Your task to perform on an android device: add a label to a message in the gmail app Image 0: 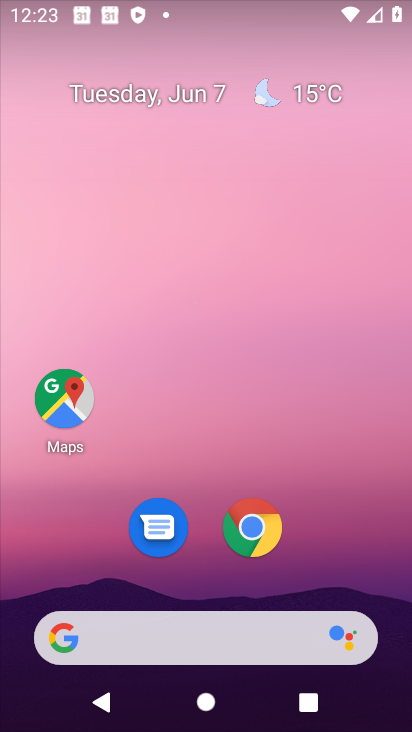
Step 0: drag from (260, 676) to (243, 106)
Your task to perform on an android device: add a label to a message in the gmail app Image 1: 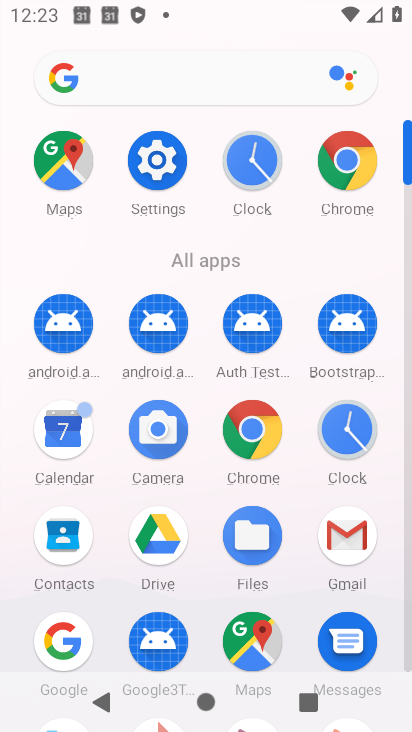
Step 1: click (356, 532)
Your task to perform on an android device: add a label to a message in the gmail app Image 2: 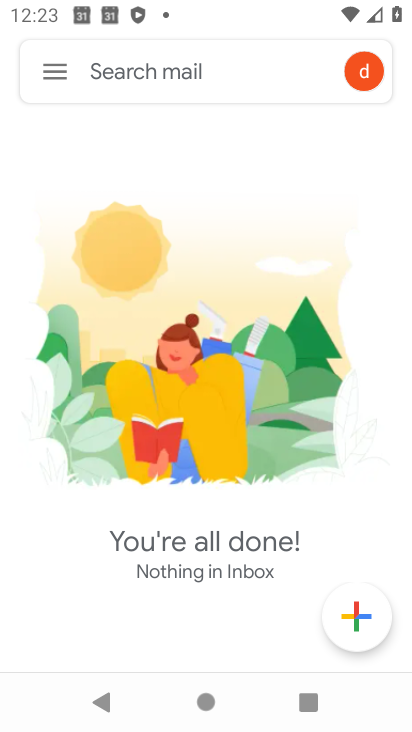
Step 2: click (67, 80)
Your task to perform on an android device: add a label to a message in the gmail app Image 3: 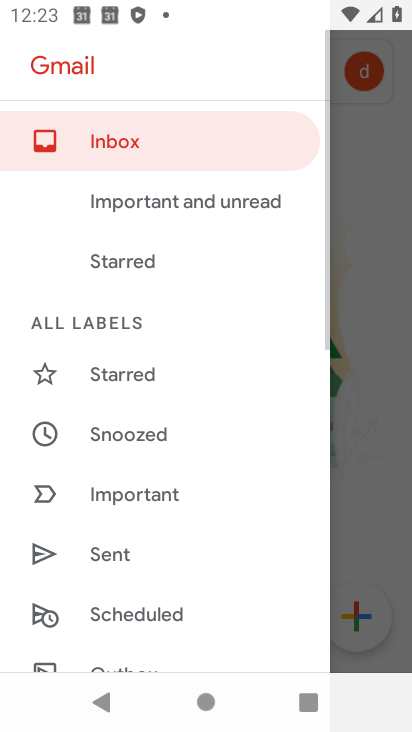
Step 3: drag from (137, 537) to (127, 126)
Your task to perform on an android device: add a label to a message in the gmail app Image 4: 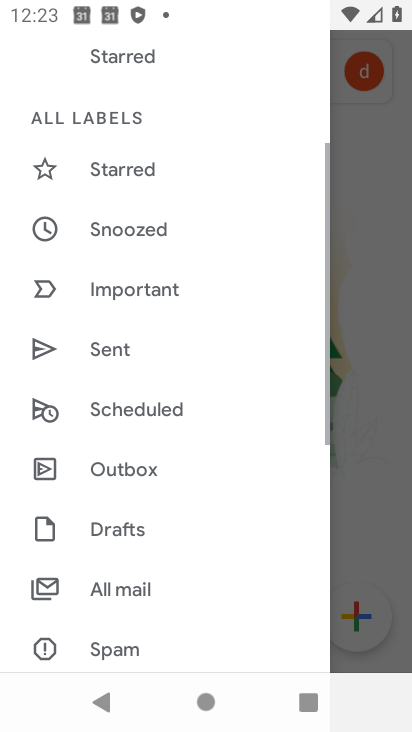
Step 4: drag from (179, 475) to (198, 158)
Your task to perform on an android device: add a label to a message in the gmail app Image 5: 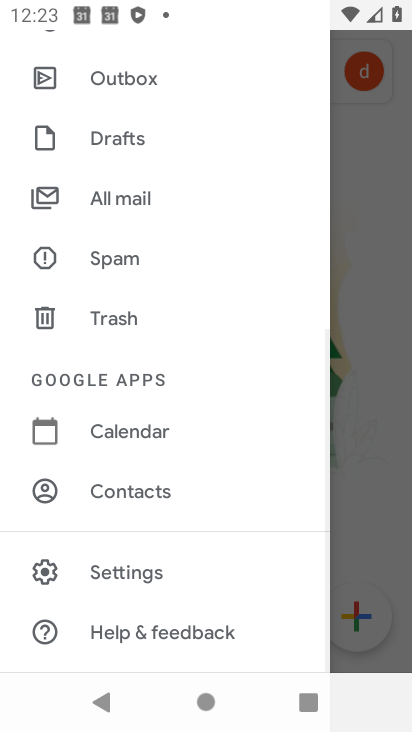
Step 5: click (118, 195)
Your task to perform on an android device: add a label to a message in the gmail app Image 6: 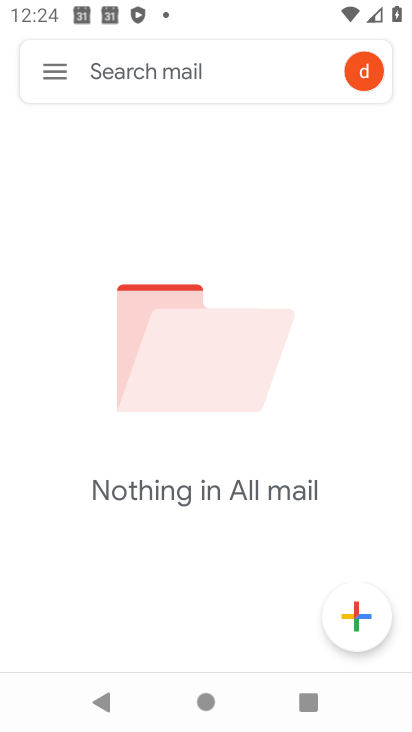
Step 6: task complete